Your task to perform on an android device: Open settings Image 0: 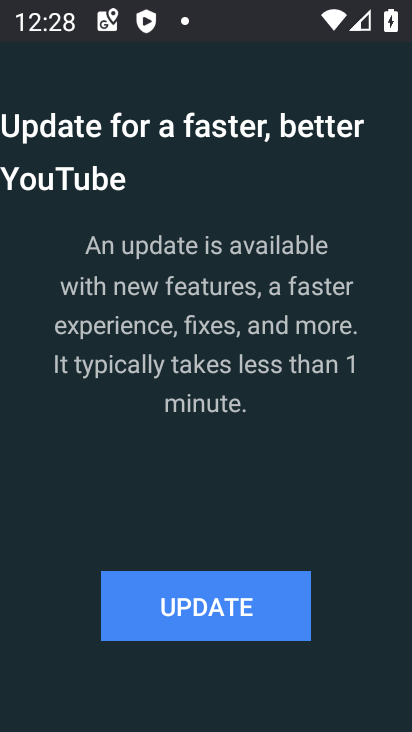
Step 0: press back button
Your task to perform on an android device: Open settings Image 1: 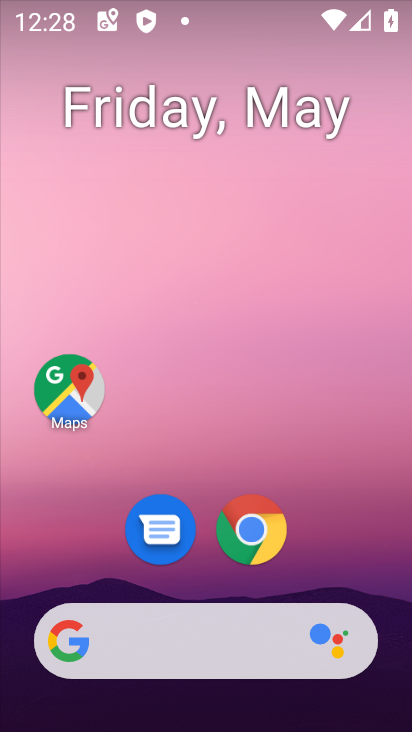
Step 1: drag from (336, 553) to (196, 244)
Your task to perform on an android device: Open settings Image 2: 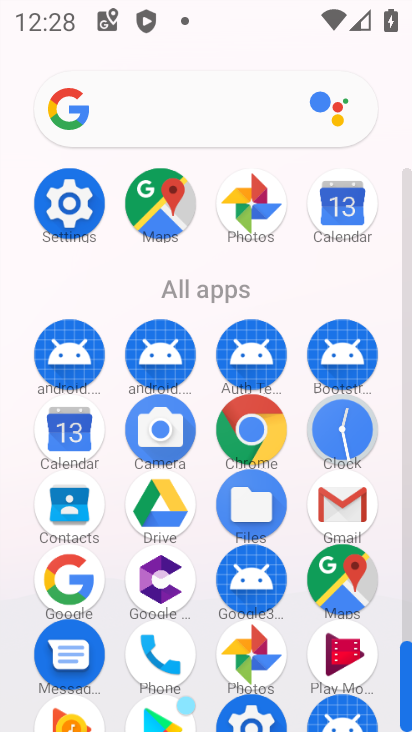
Step 2: click (77, 220)
Your task to perform on an android device: Open settings Image 3: 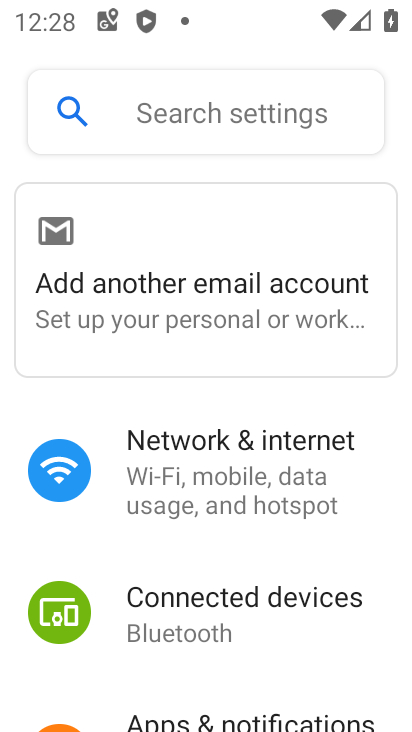
Step 3: task complete